Your task to perform on an android device: open app "HBO Max: Stream TV & Movies" Image 0: 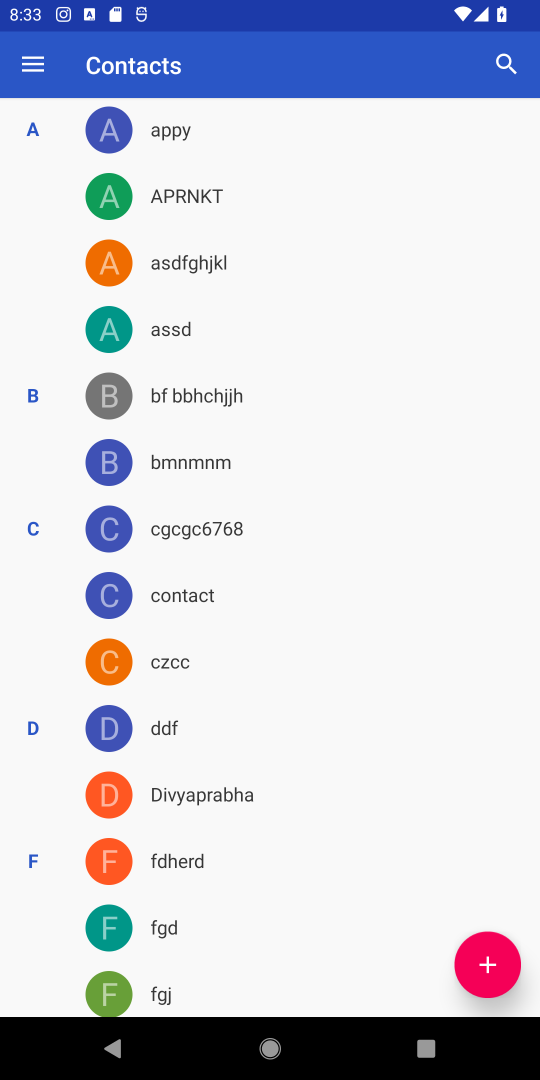
Step 0: press home button
Your task to perform on an android device: open app "HBO Max: Stream TV & Movies" Image 1: 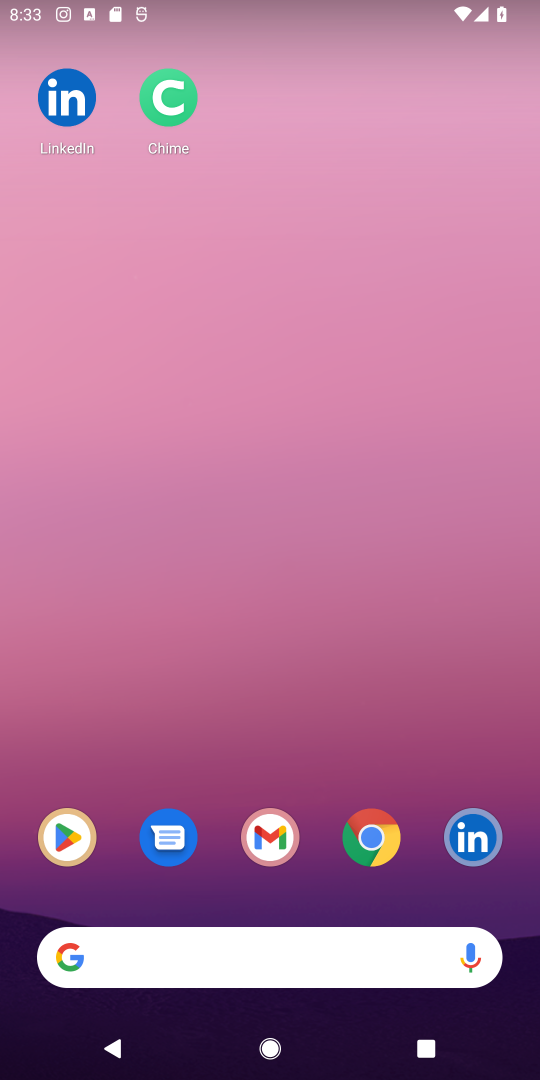
Step 1: click (64, 842)
Your task to perform on an android device: open app "HBO Max: Stream TV & Movies" Image 2: 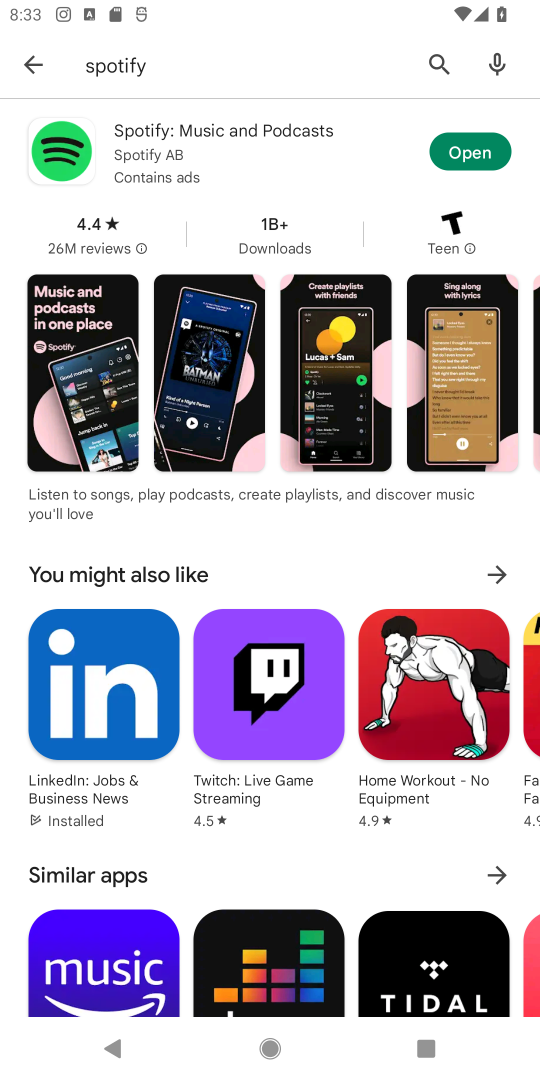
Step 2: click (436, 65)
Your task to perform on an android device: open app "HBO Max: Stream TV & Movies" Image 3: 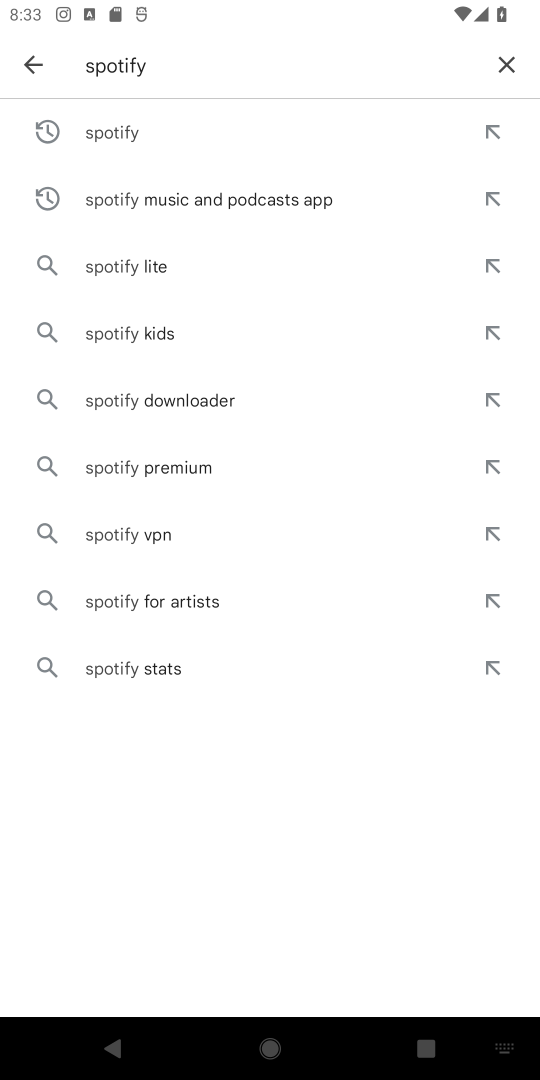
Step 3: click (501, 69)
Your task to perform on an android device: open app "HBO Max: Stream TV & Movies" Image 4: 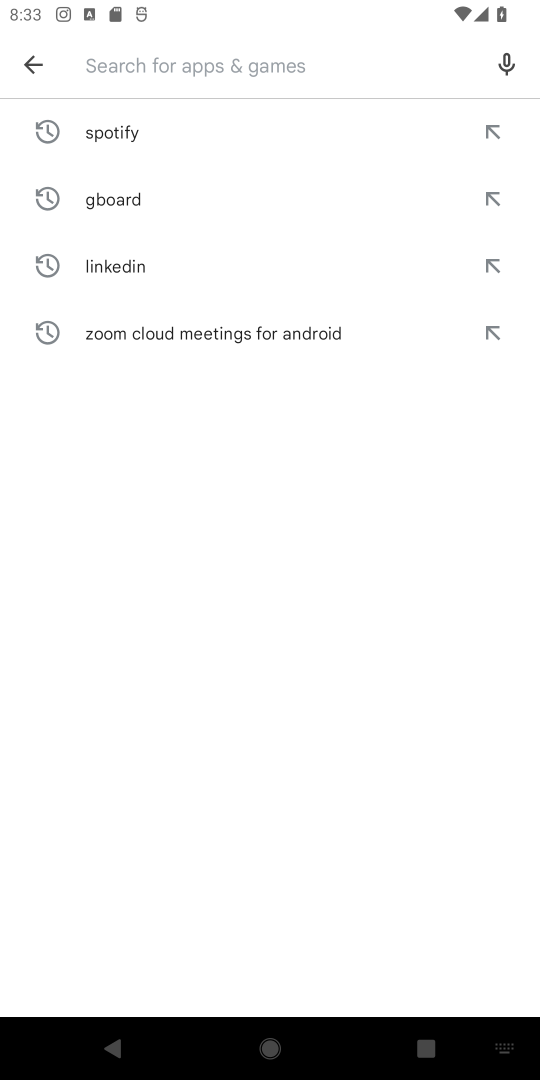
Step 4: type "HBO Max: Stream TV & Movies"
Your task to perform on an android device: open app "HBO Max: Stream TV & Movies" Image 5: 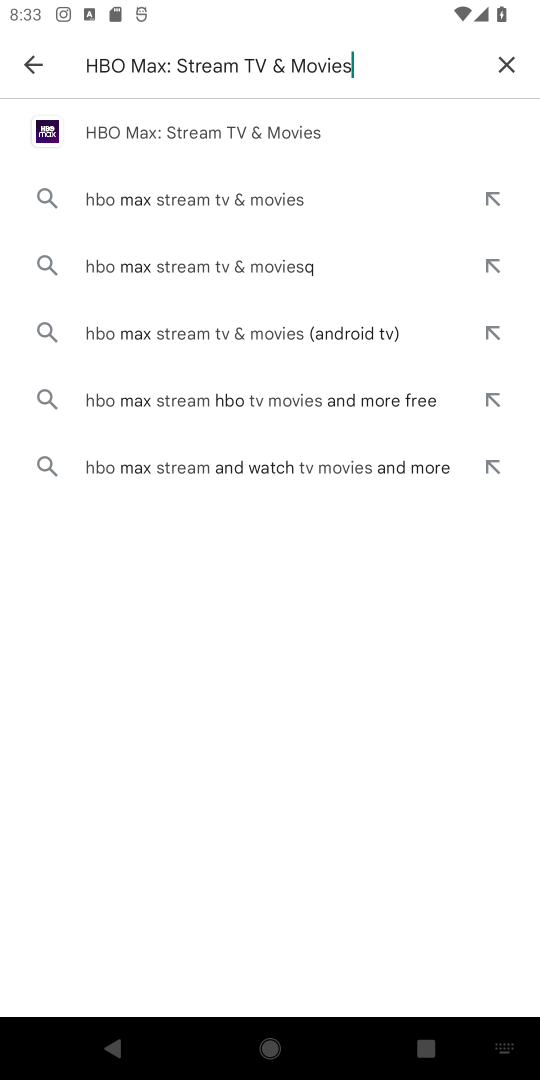
Step 5: click (240, 146)
Your task to perform on an android device: open app "HBO Max: Stream TV & Movies" Image 6: 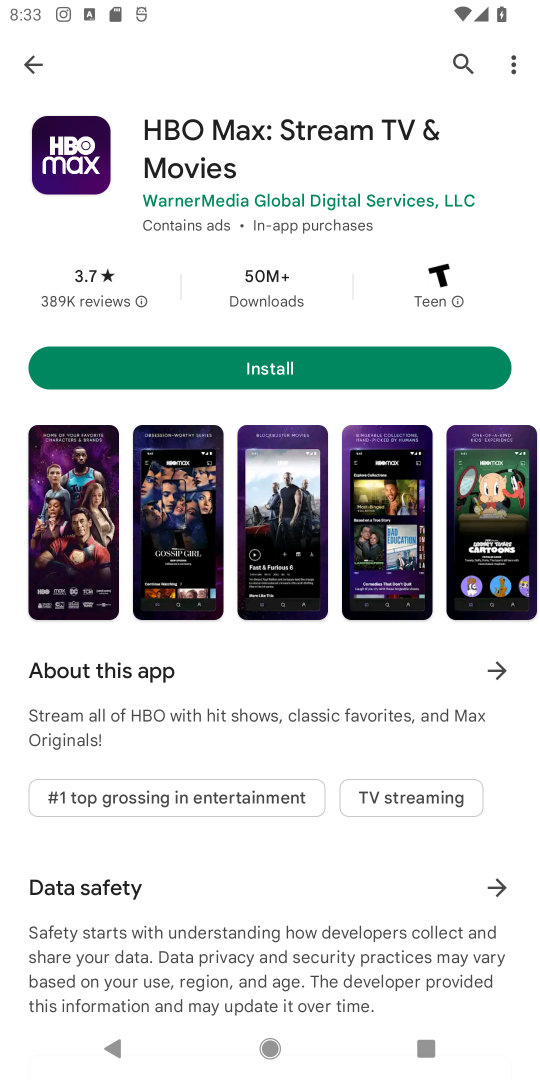
Step 6: task complete